Your task to perform on an android device: Open ESPN.com Image 0: 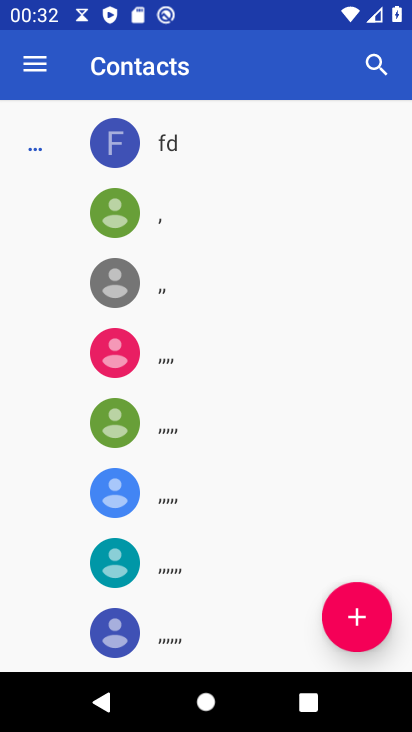
Step 0: press home button
Your task to perform on an android device: Open ESPN.com Image 1: 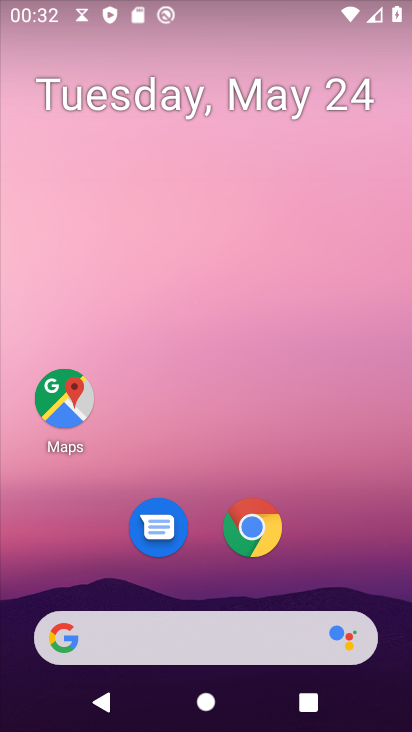
Step 1: click (265, 538)
Your task to perform on an android device: Open ESPN.com Image 2: 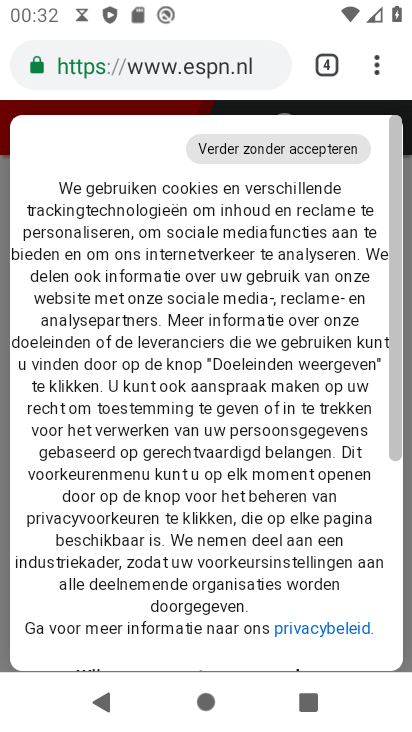
Step 2: drag from (221, 396) to (185, 633)
Your task to perform on an android device: Open ESPN.com Image 3: 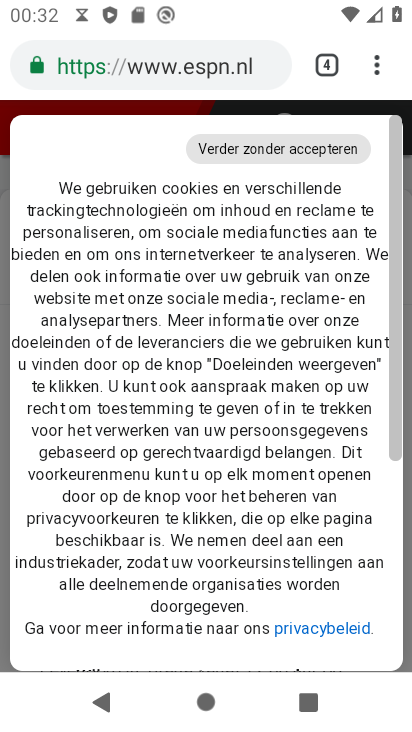
Step 3: press back button
Your task to perform on an android device: Open ESPN.com Image 4: 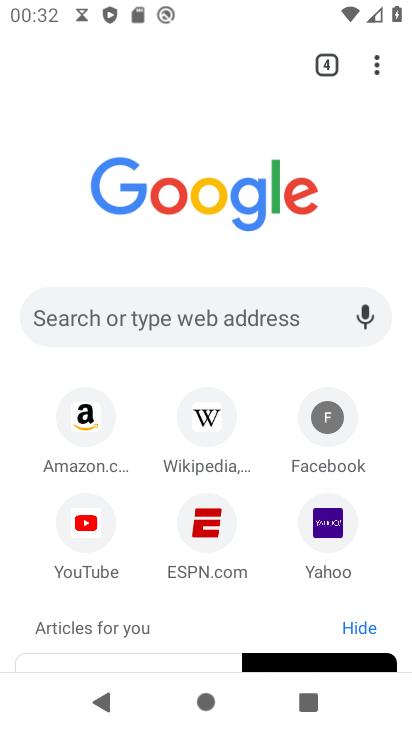
Step 4: click (205, 531)
Your task to perform on an android device: Open ESPN.com Image 5: 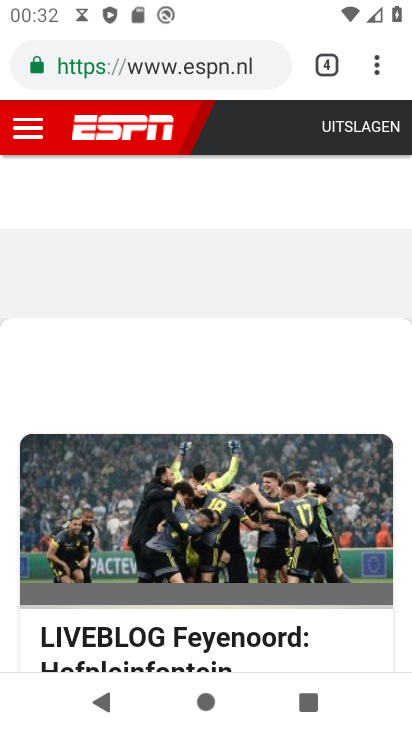
Step 5: drag from (168, 577) to (244, 353)
Your task to perform on an android device: Open ESPN.com Image 6: 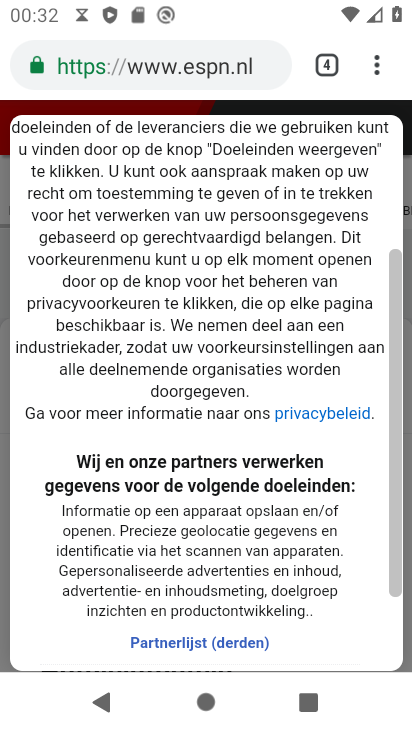
Step 6: drag from (244, 590) to (303, 119)
Your task to perform on an android device: Open ESPN.com Image 7: 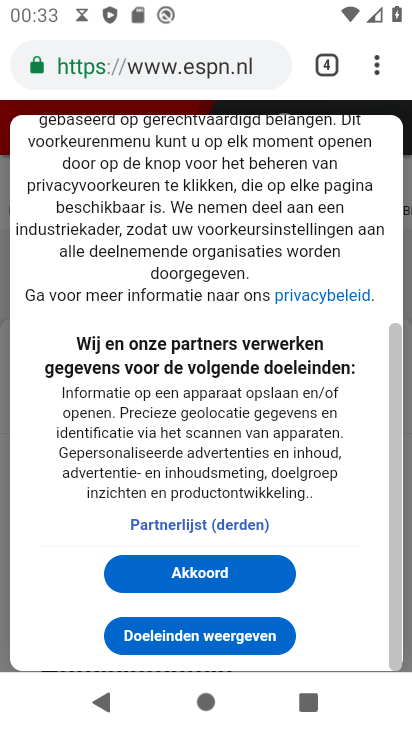
Step 7: click (196, 571)
Your task to perform on an android device: Open ESPN.com Image 8: 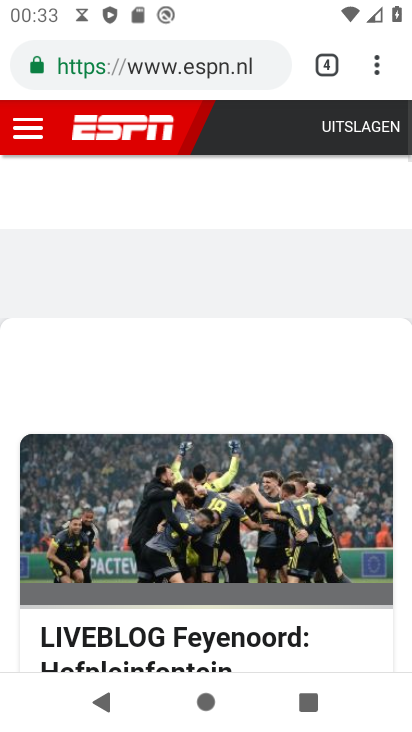
Step 8: task complete